Your task to perform on an android device: toggle show notifications on the lock screen Image 0: 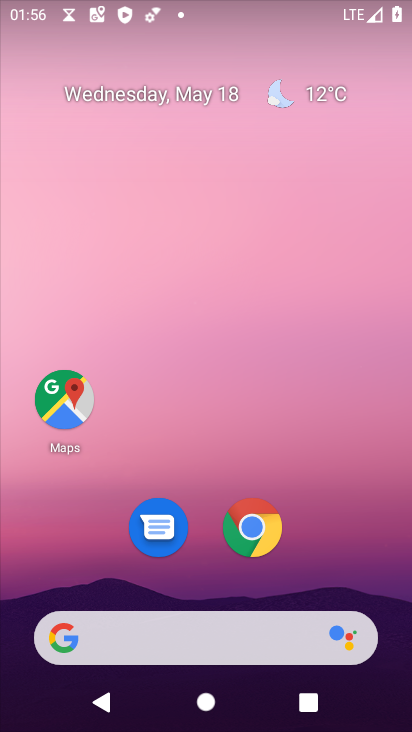
Step 0: drag from (334, 577) to (229, 0)
Your task to perform on an android device: toggle show notifications on the lock screen Image 1: 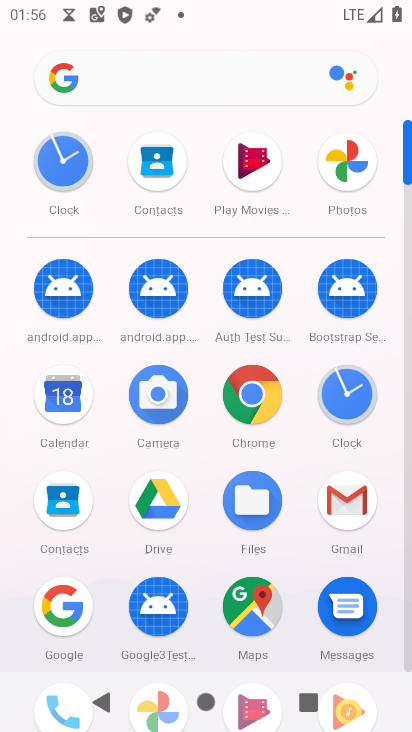
Step 1: drag from (200, 554) to (206, 232)
Your task to perform on an android device: toggle show notifications on the lock screen Image 2: 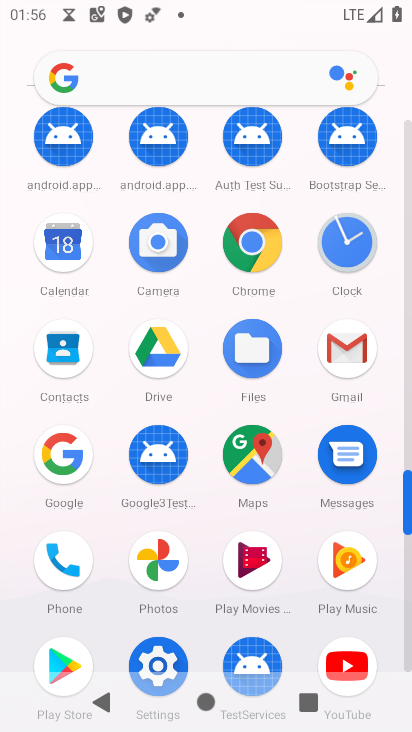
Step 2: click (151, 657)
Your task to perform on an android device: toggle show notifications on the lock screen Image 3: 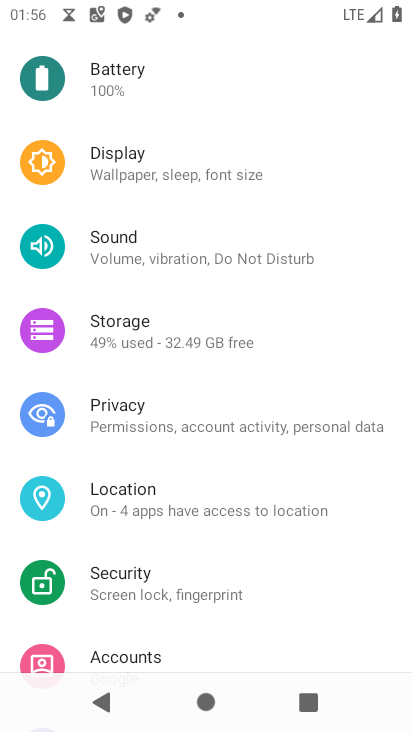
Step 3: drag from (226, 184) to (175, 645)
Your task to perform on an android device: toggle show notifications on the lock screen Image 4: 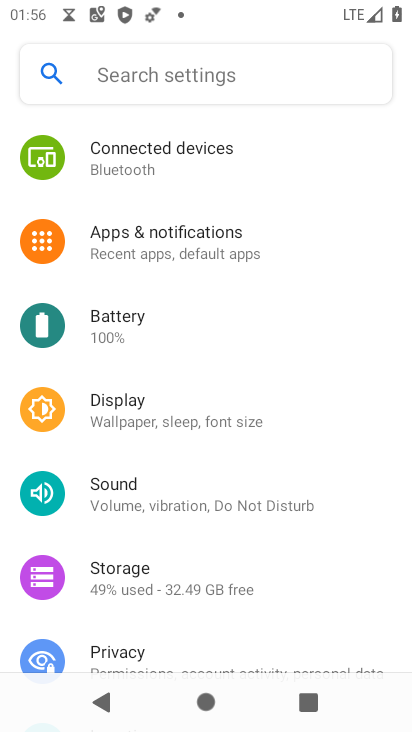
Step 4: click (223, 251)
Your task to perform on an android device: toggle show notifications on the lock screen Image 5: 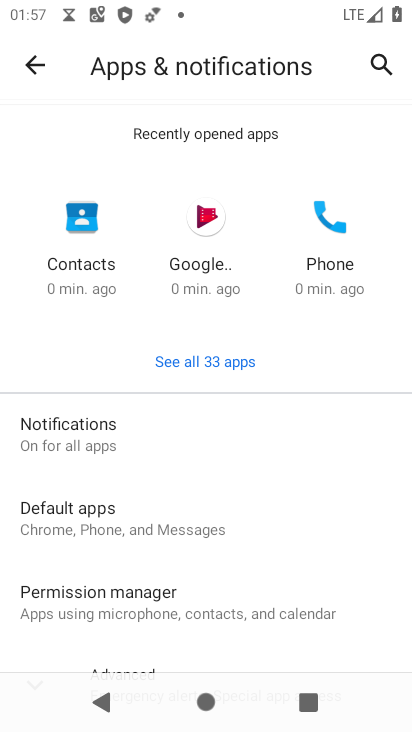
Step 5: click (206, 440)
Your task to perform on an android device: toggle show notifications on the lock screen Image 6: 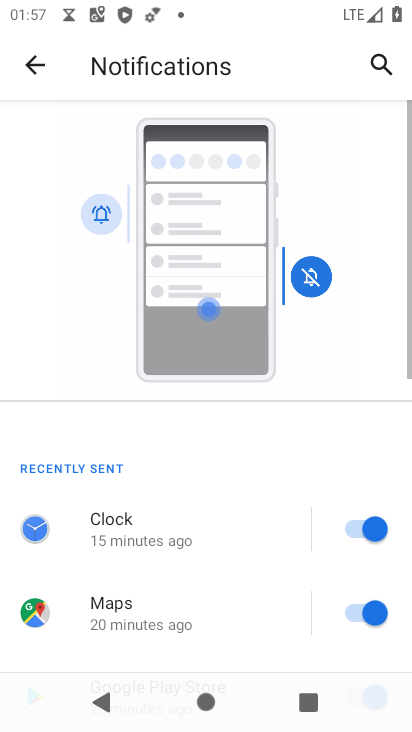
Step 6: drag from (247, 597) to (252, 201)
Your task to perform on an android device: toggle show notifications on the lock screen Image 7: 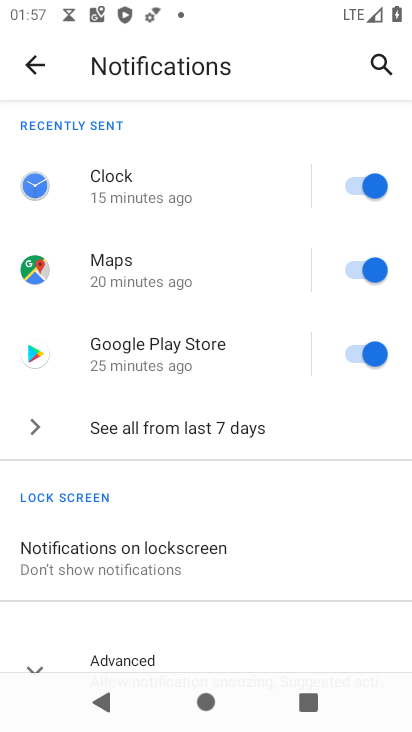
Step 7: click (228, 565)
Your task to perform on an android device: toggle show notifications on the lock screen Image 8: 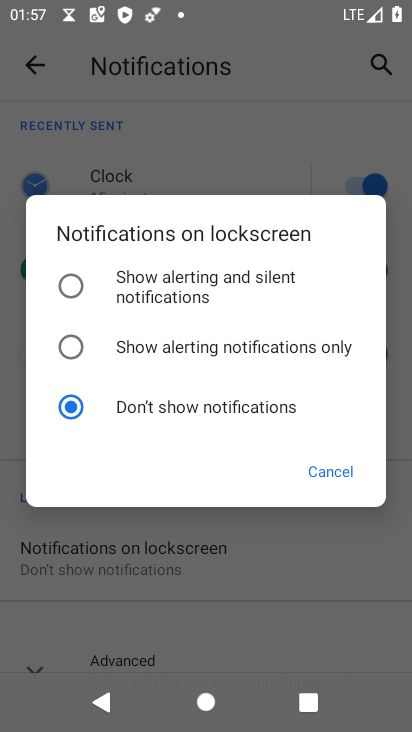
Step 8: click (199, 286)
Your task to perform on an android device: toggle show notifications on the lock screen Image 9: 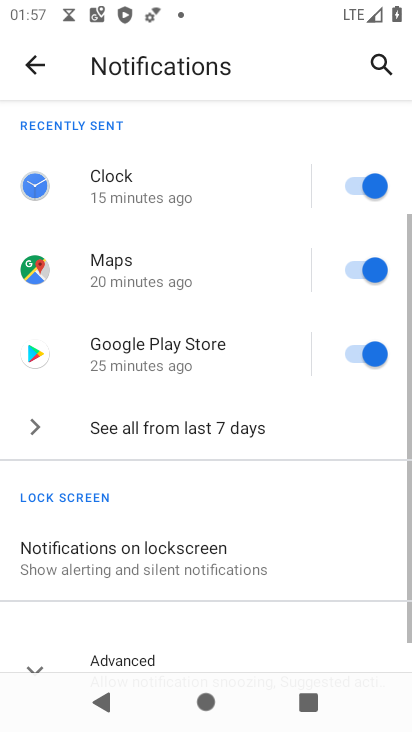
Step 9: task complete